Your task to perform on an android device: open wifi settings Image 0: 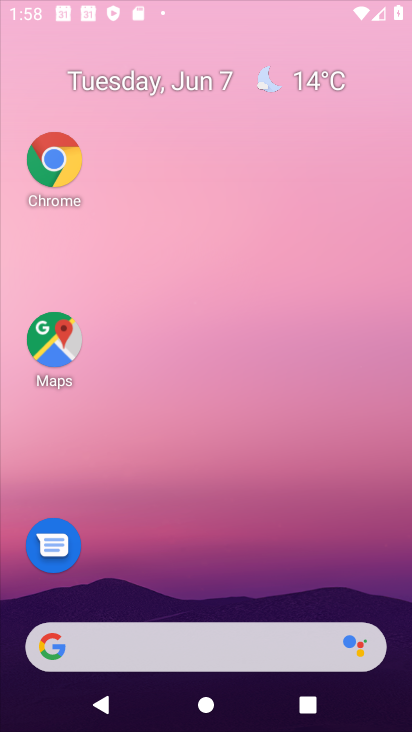
Step 0: click (191, 85)
Your task to perform on an android device: open wifi settings Image 1: 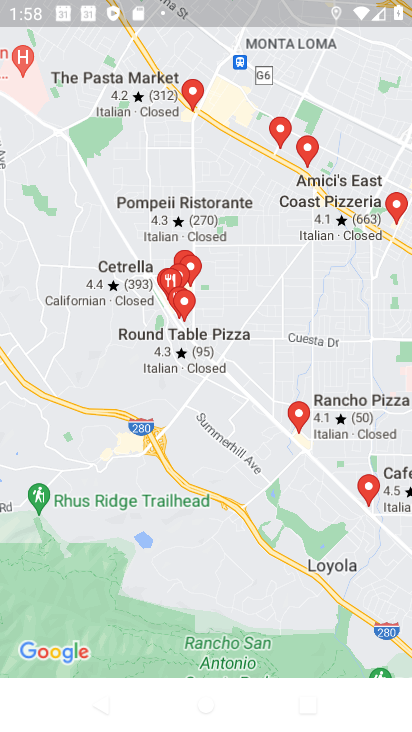
Step 1: press home button
Your task to perform on an android device: open wifi settings Image 2: 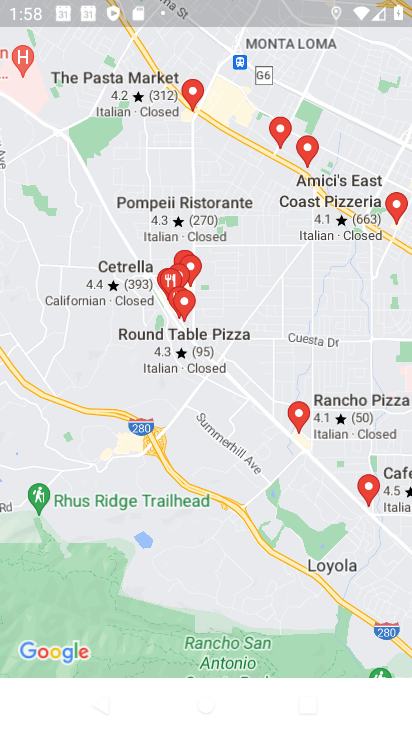
Step 2: drag from (262, 448) to (280, 47)
Your task to perform on an android device: open wifi settings Image 3: 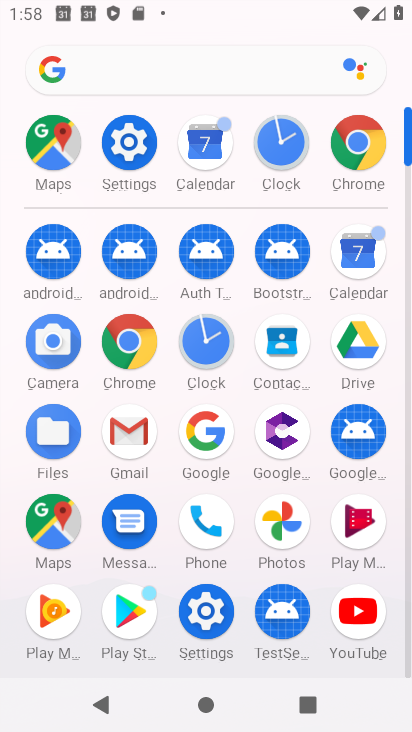
Step 3: click (137, 146)
Your task to perform on an android device: open wifi settings Image 4: 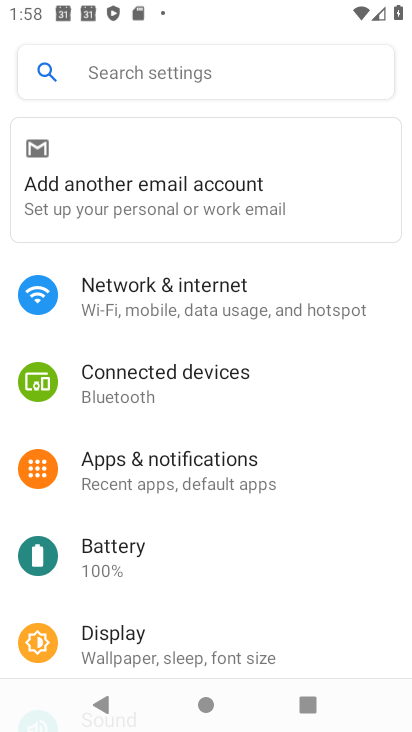
Step 4: click (189, 300)
Your task to perform on an android device: open wifi settings Image 5: 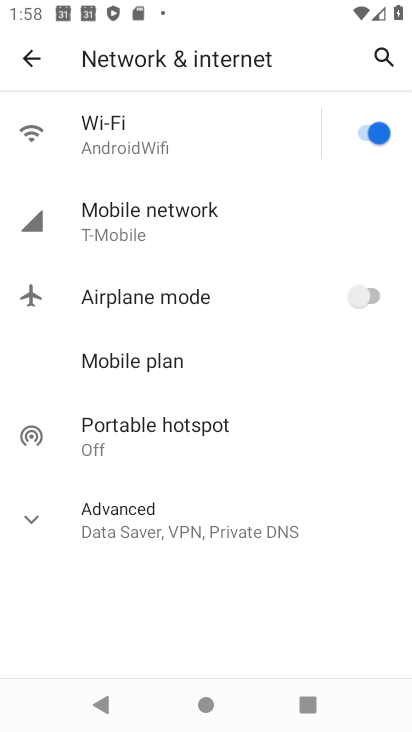
Step 5: click (167, 153)
Your task to perform on an android device: open wifi settings Image 6: 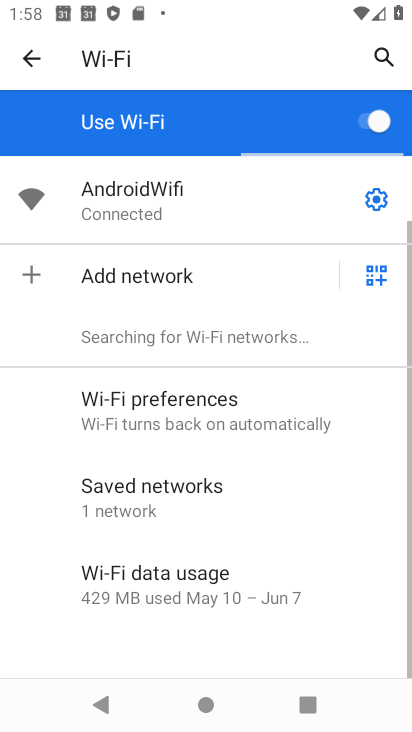
Step 6: click (383, 195)
Your task to perform on an android device: open wifi settings Image 7: 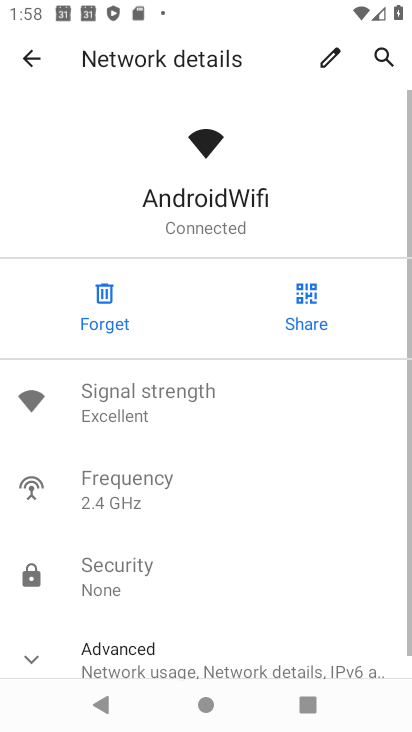
Step 7: task complete